Your task to perform on an android device: turn smart compose on in the gmail app Image 0: 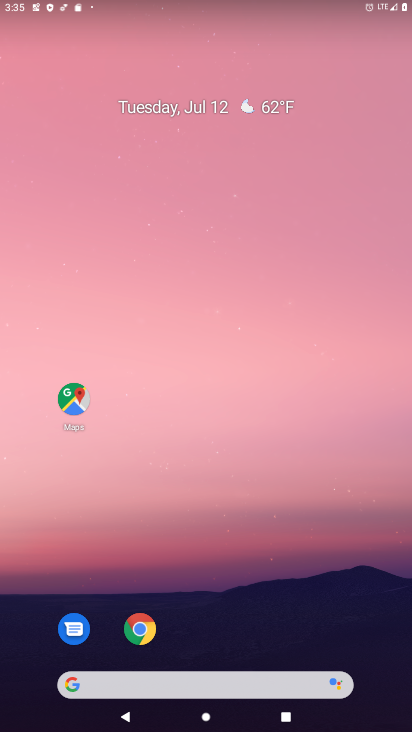
Step 0: drag from (187, 653) to (123, 54)
Your task to perform on an android device: turn smart compose on in the gmail app Image 1: 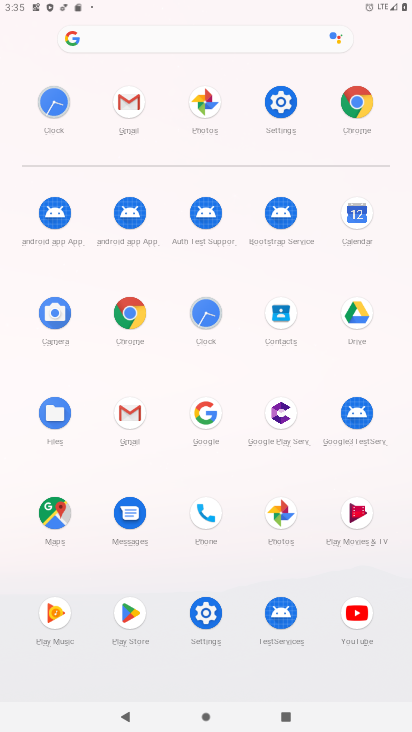
Step 1: click (120, 410)
Your task to perform on an android device: turn smart compose on in the gmail app Image 2: 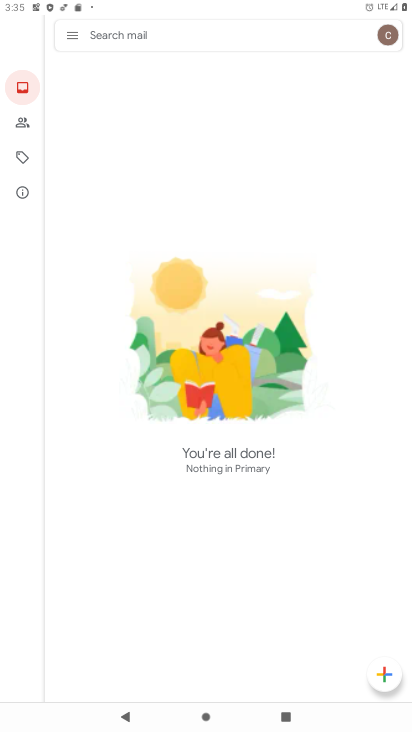
Step 2: click (76, 32)
Your task to perform on an android device: turn smart compose on in the gmail app Image 3: 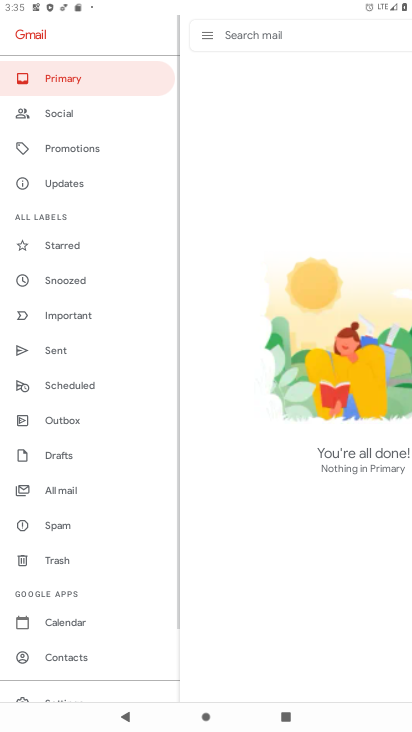
Step 3: drag from (80, 635) to (47, 199)
Your task to perform on an android device: turn smart compose on in the gmail app Image 4: 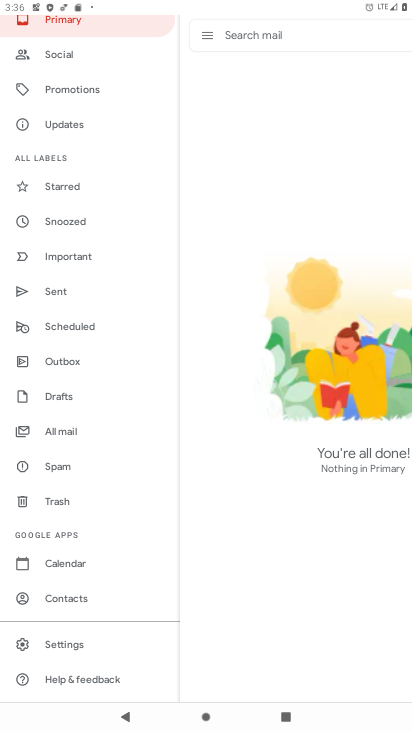
Step 4: click (78, 638)
Your task to perform on an android device: turn smart compose on in the gmail app Image 5: 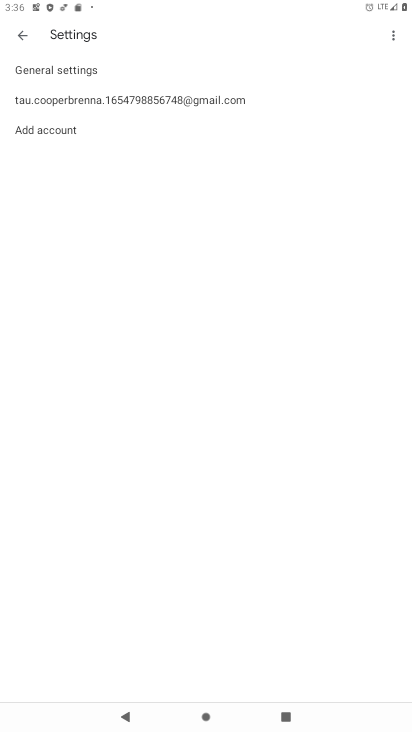
Step 5: click (33, 94)
Your task to perform on an android device: turn smart compose on in the gmail app Image 6: 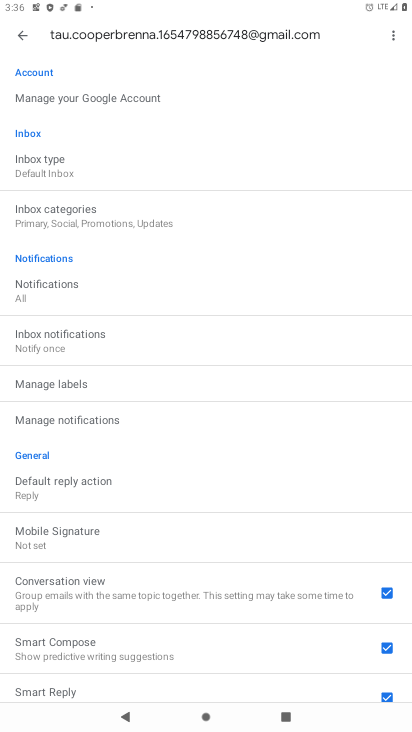
Step 6: task complete